Your task to perform on an android device: turn vacation reply on in the gmail app Image 0: 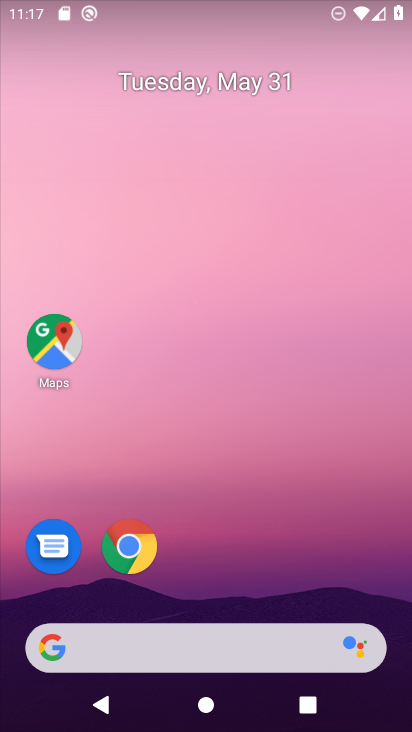
Step 0: drag from (190, 651) to (163, 215)
Your task to perform on an android device: turn vacation reply on in the gmail app Image 1: 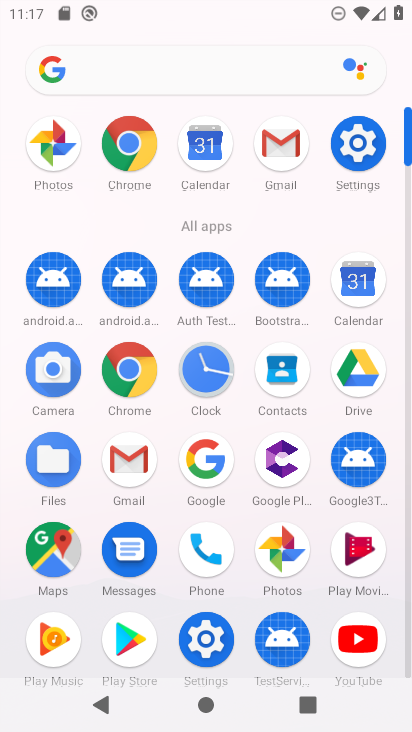
Step 1: click (144, 467)
Your task to perform on an android device: turn vacation reply on in the gmail app Image 2: 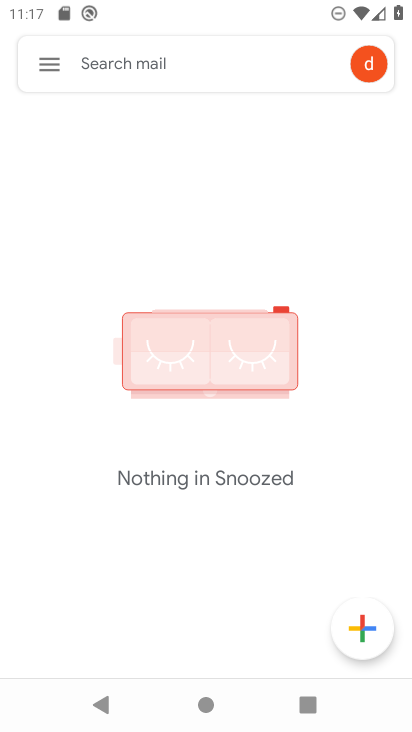
Step 2: click (43, 57)
Your task to perform on an android device: turn vacation reply on in the gmail app Image 3: 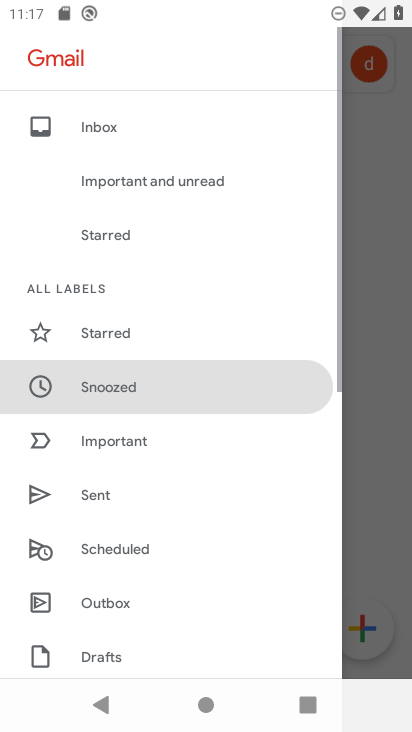
Step 3: drag from (146, 586) to (187, 84)
Your task to perform on an android device: turn vacation reply on in the gmail app Image 4: 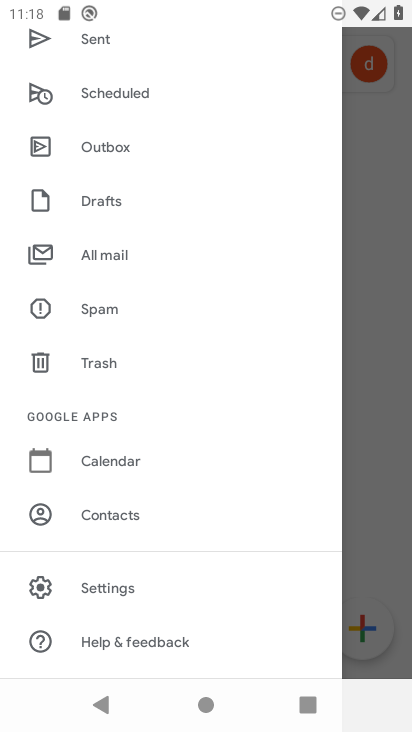
Step 4: click (105, 593)
Your task to perform on an android device: turn vacation reply on in the gmail app Image 5: 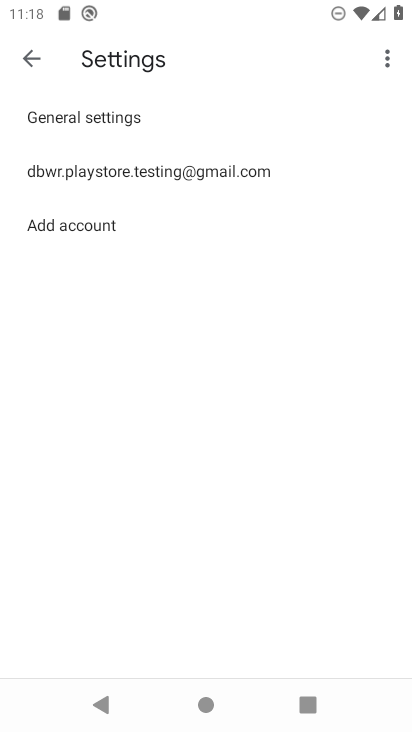
Step 5: click (168, 170)
Your task to perform on an android device: turn vacation reply on in the gmail app Image 6: 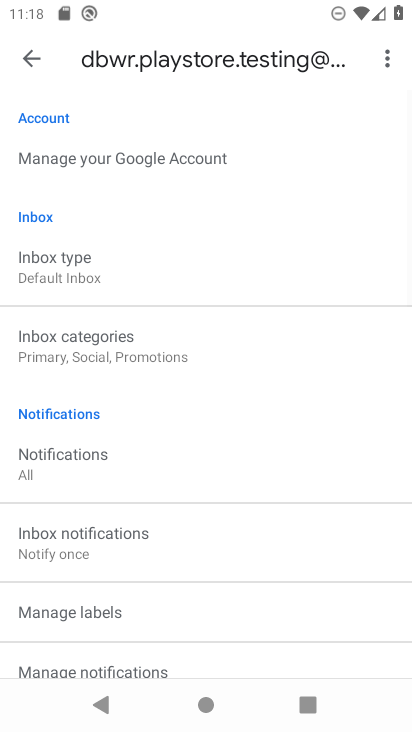
Step 6: drag from (168, 669) to (168, 727)
Your task to perform on an android device: turn vacation reply on in the gmail app Image 7: 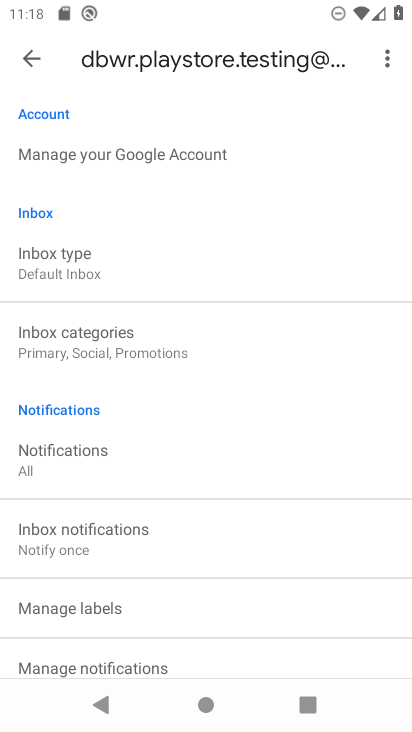
Step 7: drag from (125, 622) to (177, 258)
Your task to perform on an android device: turn vacation reply on in the gmail app Image 8: 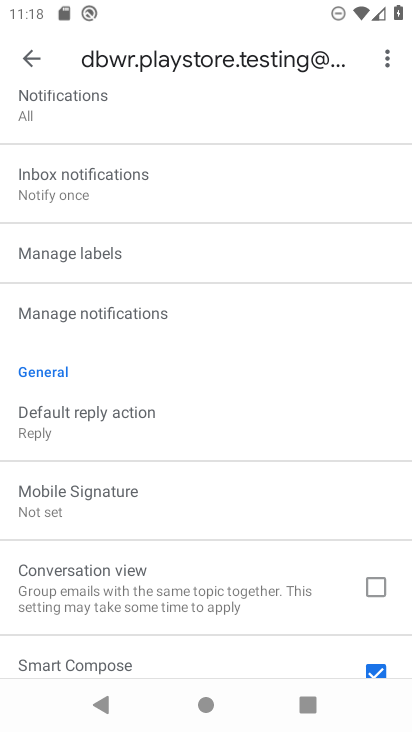
Step 8: drag from (208, 641) to (224, 382)
Your task to perform on an android device: turn vacation reply on in the gmail app Image 9: 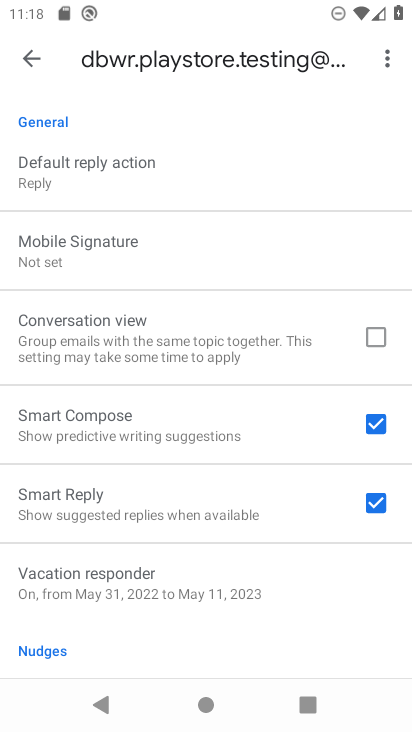
Step 9: click (216, 586)
Your task to perform on an android device: turn vacation reply on in the gmail app Image 10: 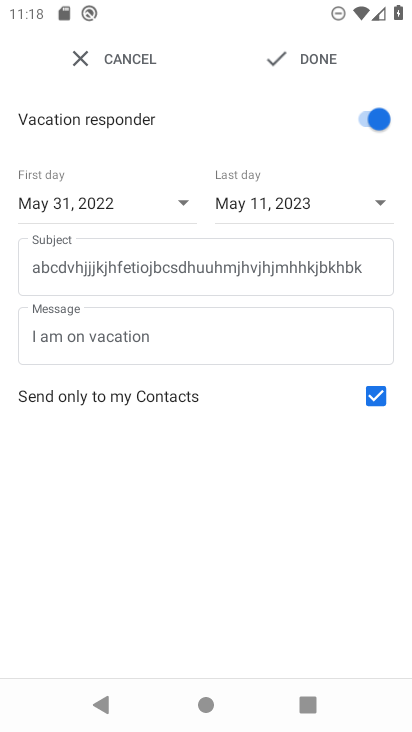
Step 10: click (303, 62)
Your task to perform on an android device: turn vacation reply on in the gmail app Image 11: 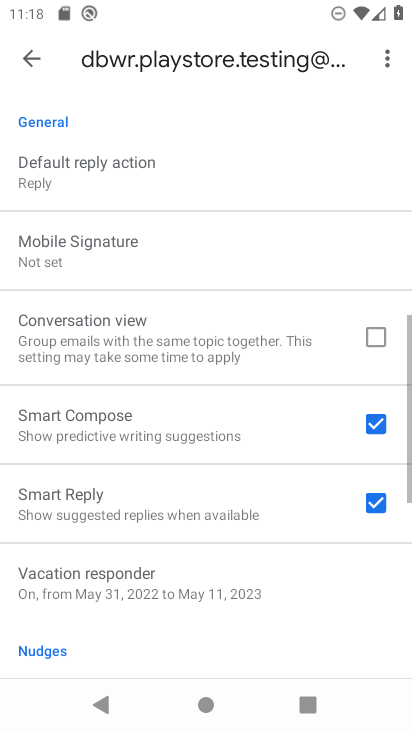
Step 11: task complete